Your task to perform on an android device: change the clock style Image 0: 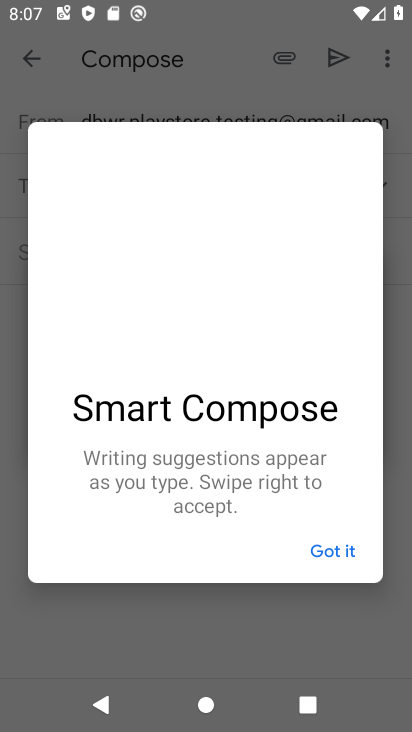
Step 0: press home button
Your task to perform on an android device: change the clock style Image 1: 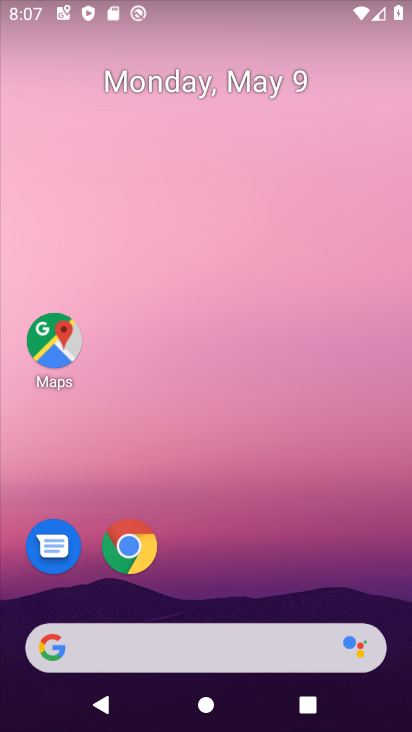
Step 1: drag from (259, 692) to (286, 2)
Your task to perform on an android device: change the clock style Image 2: 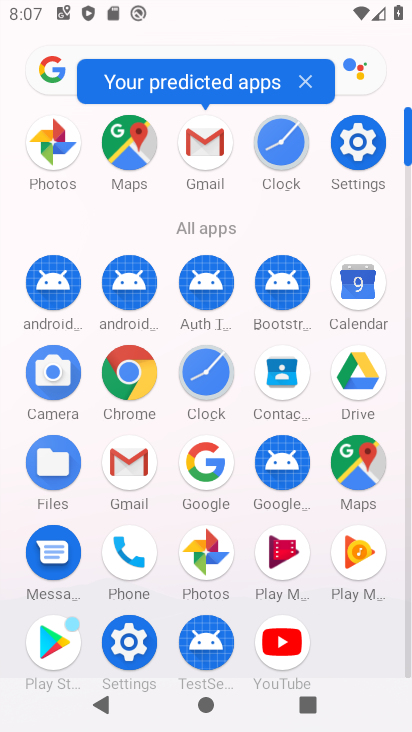
Step 2: click (202, 371)
Your task to perform on an android device: change the clock style Image 3: 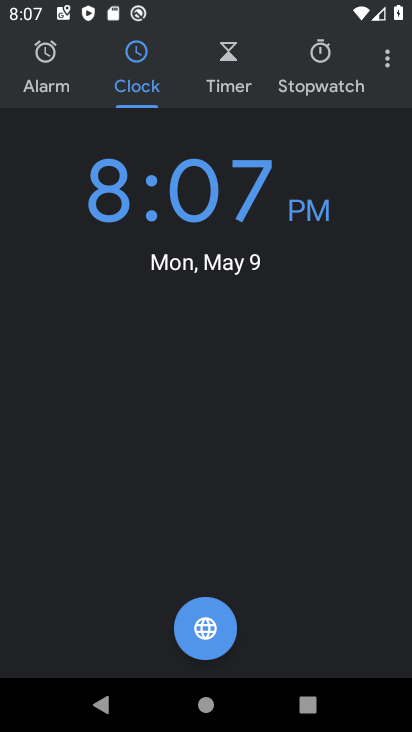
Step 3: click (396, 50)
Your task to perform on an android device: change the clock style Image 4: 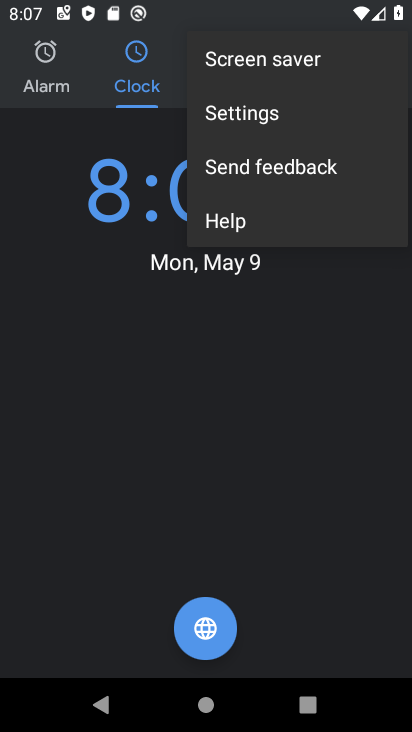
Step 4: click (282, 119)
Your task to perform on an android device: change the clock style Image 5: 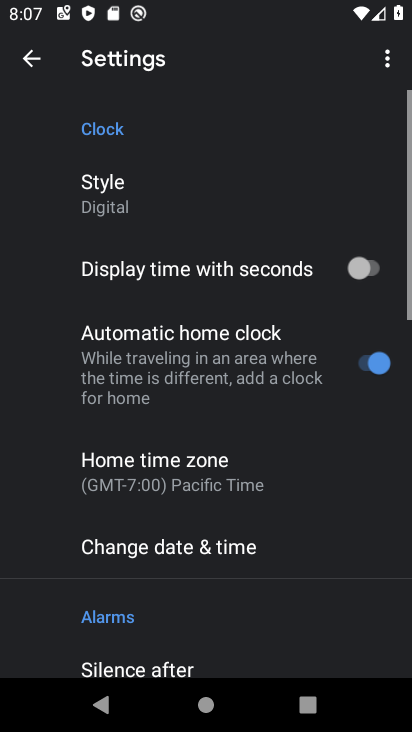
Step 5: click (109, 197)
Your task to perform on an android device: change the clock style Image 6: 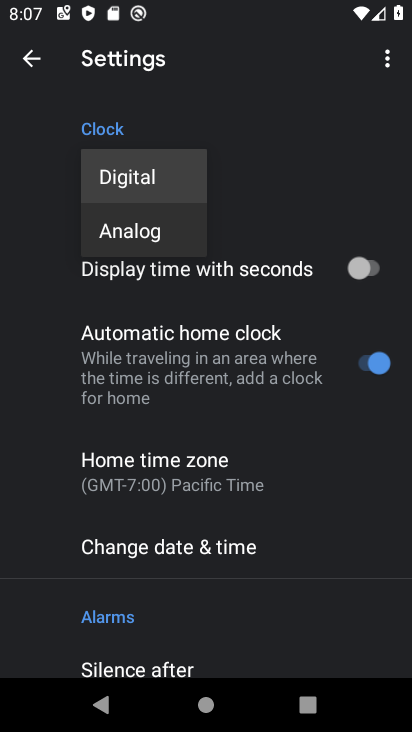
Step 6: click (112, 231)
Your task to perform on an android device: change the clock style Image 7: 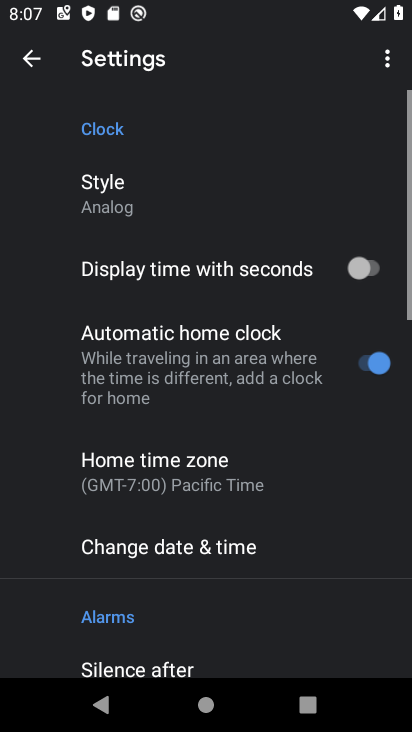
Step 7: task complete